Your task to perform on an android device: Open network settings Image 0: 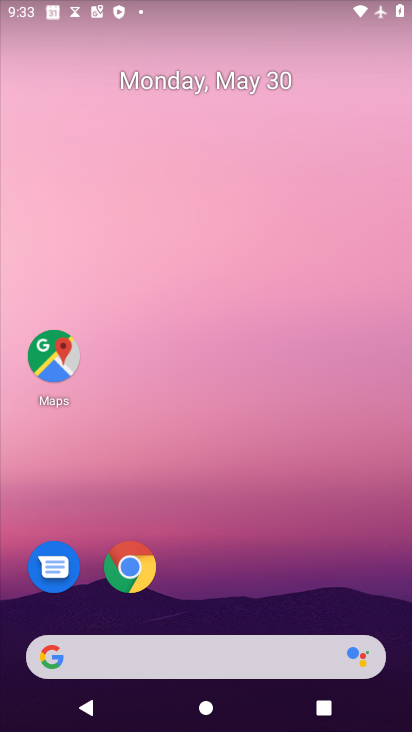
Step 0: drag from (246, 611) to (198, 90)
Your task to perform on an android device: Open network settings Image 1: 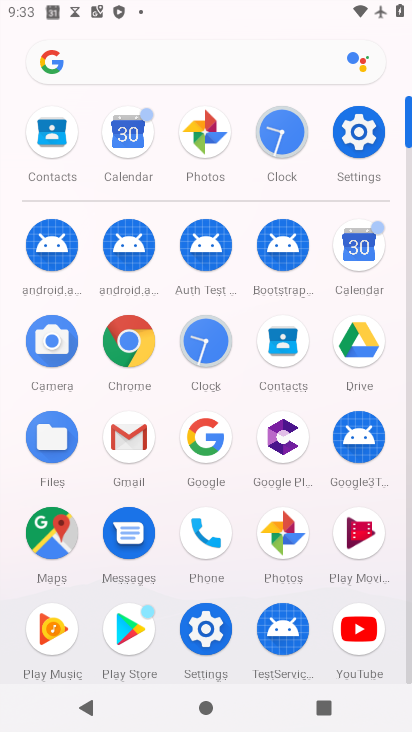
Step 1: click (341, 147)
Your task to perform on an android device: Open network settings Image 2: 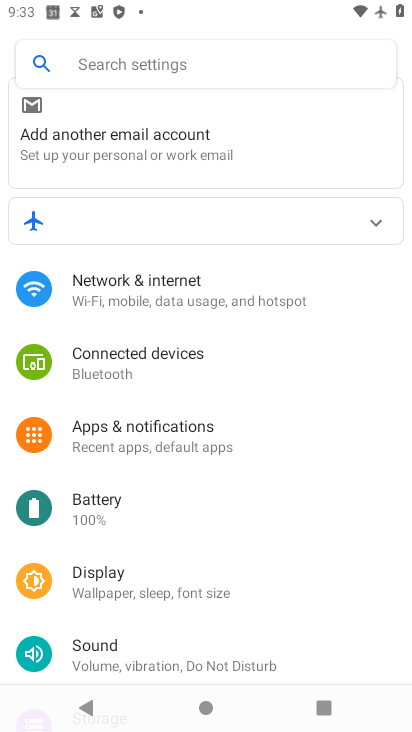
Step 2: click (233, 287)
Your task to perform on an android device: Open network settings Image 3: 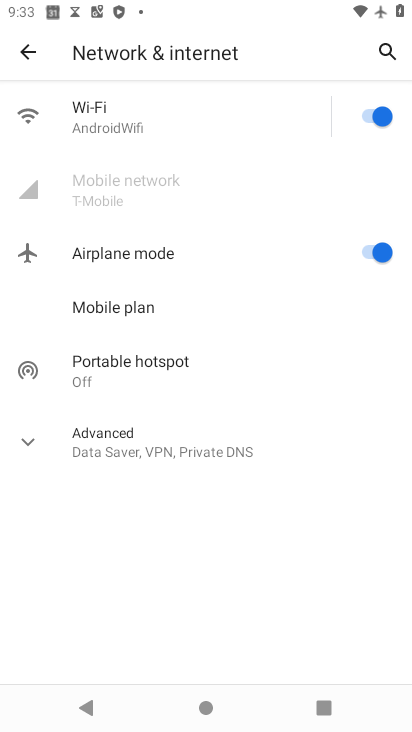
Step 3: task complete